Your task to perform on an android device: Go to battery settings Image 0: 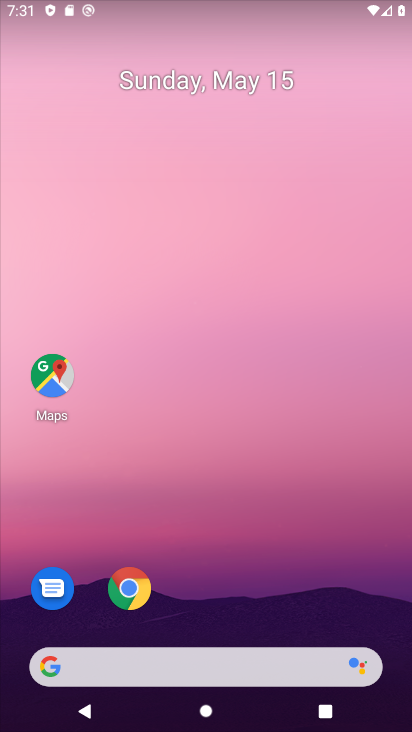
Step 0: drag from (220, 584) to (219, 64)
Your task to perform on an android device: Go to battery settings Image 1: 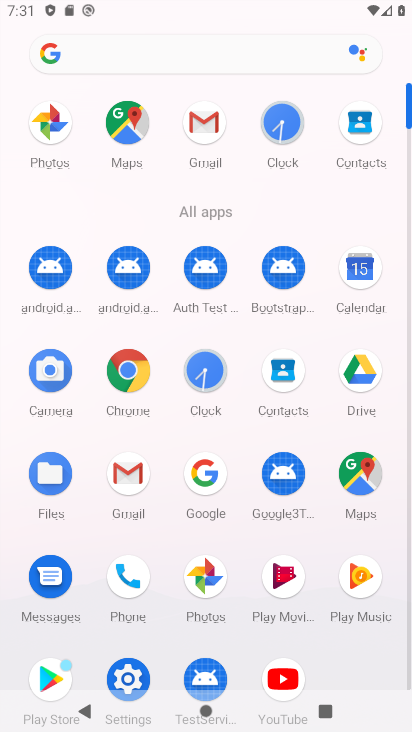
Step 1: click (130, 662)
Your task to perform on an android device: Go to battery settings Image 2: 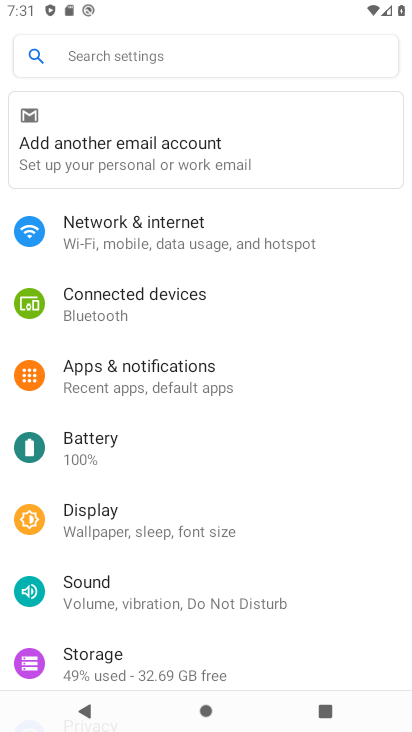
Step 2: click (108, 439)
Your task to perform on an android device: Go to battery settings Image 3: 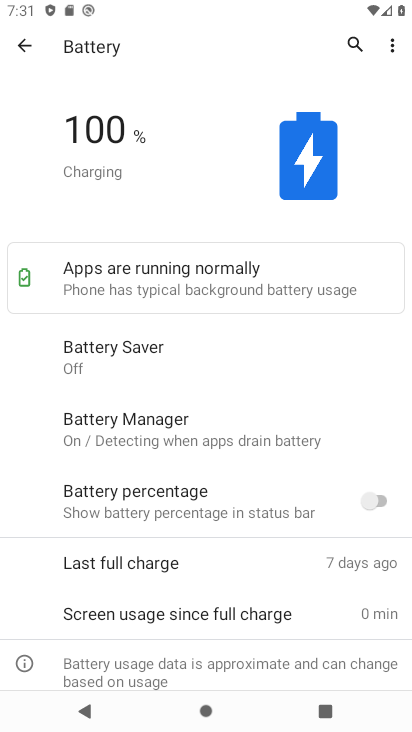
Step 3: task complete